Your task to perform on an android device: see tabs open on other devices in the chrome app Image 0: 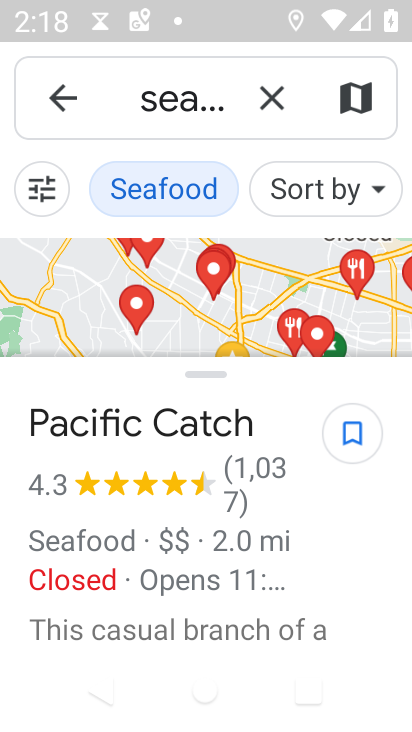
Step 0: press home button
Your task to perform on an android device: see tabs open on other devices in the chrome app Image 1: 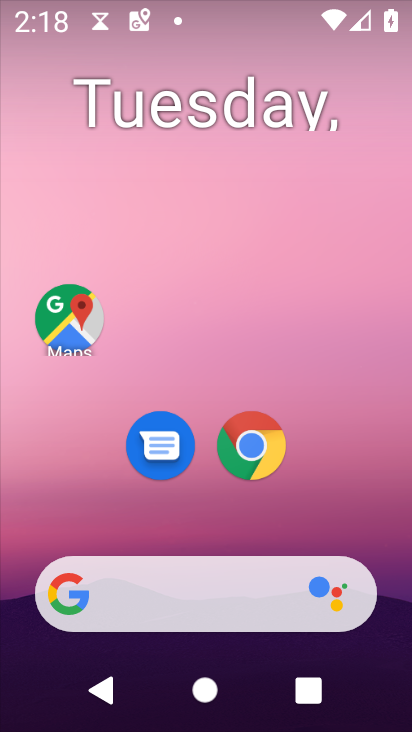
Step 1: drag from (311, 609) to (322, 1)
Your task to perform on an android device: see tabs open on other devices in the chrome app Image 2: 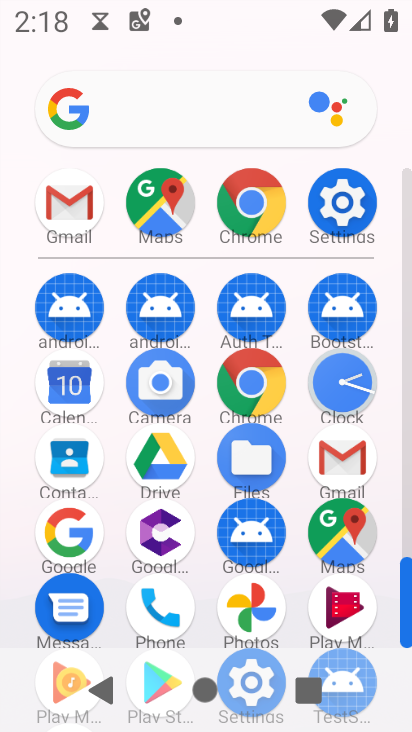
Step 2: click (254, 374)
Your task to perform on an android device: see tabs open on other devices in the chrome app Image 3: 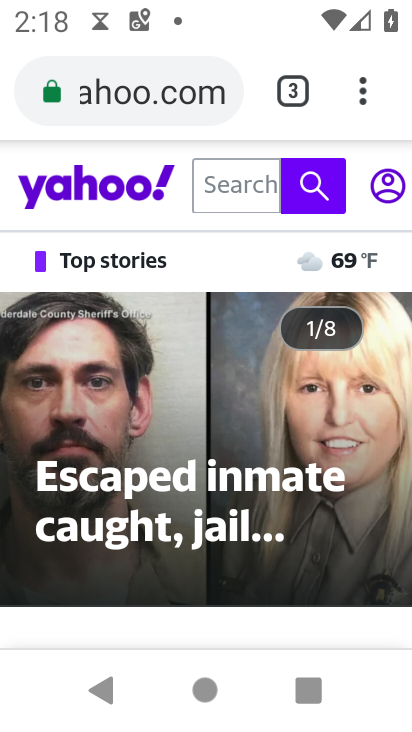
Step 3: task complete